Your task to perform on an android device: Show me recent news Image 0: 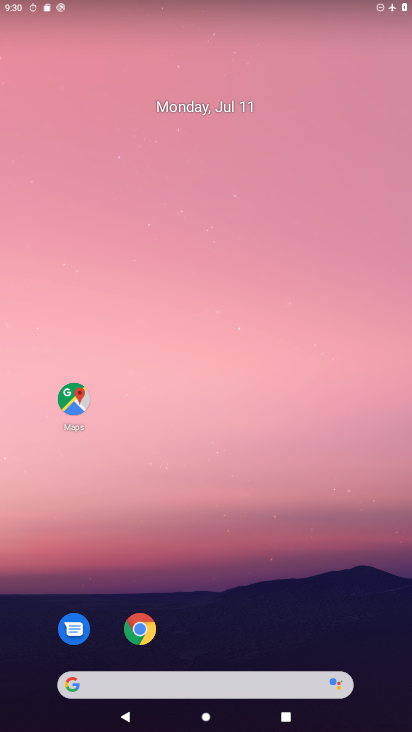
Step 0: click (199, 687)
Your task to perform on an android device: Show me recent news Image 1: 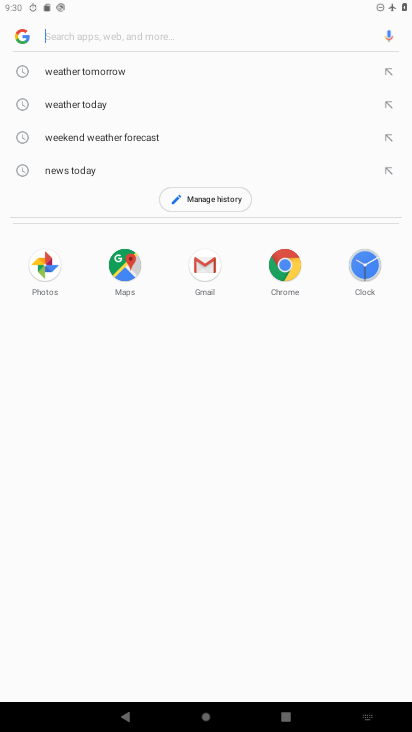
Step 1: click (27, 41)
Your task to perform on an android device: Show me recent news Image 2: 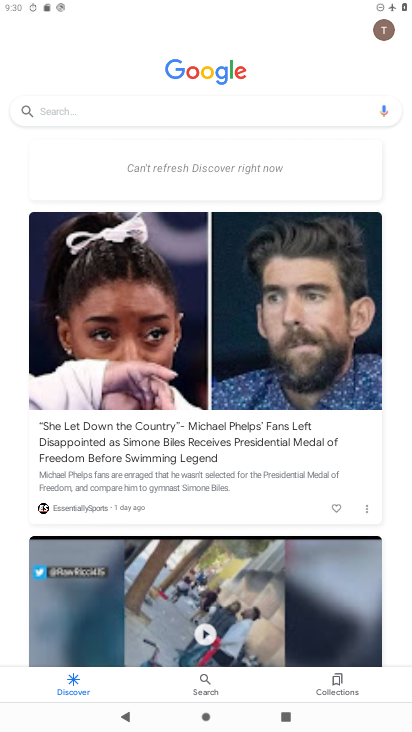
Step 2: task complete